Your task to perform on an android device: turn off javascript in the chrome app Image 0: 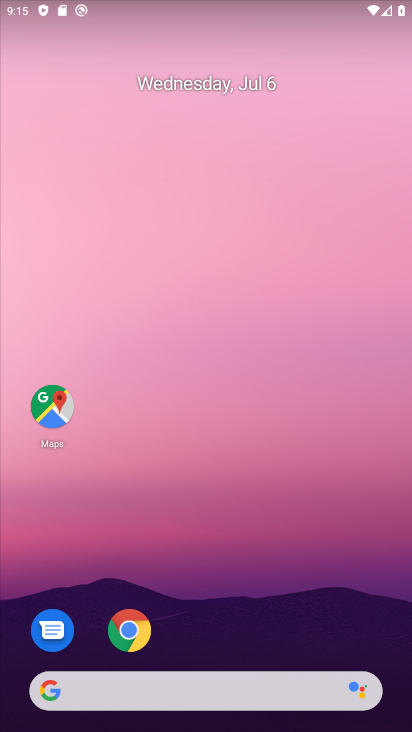
Step 0: click (128, 632)
Your task to perform on an android device: turn off javascript in the chrome app Image 1: 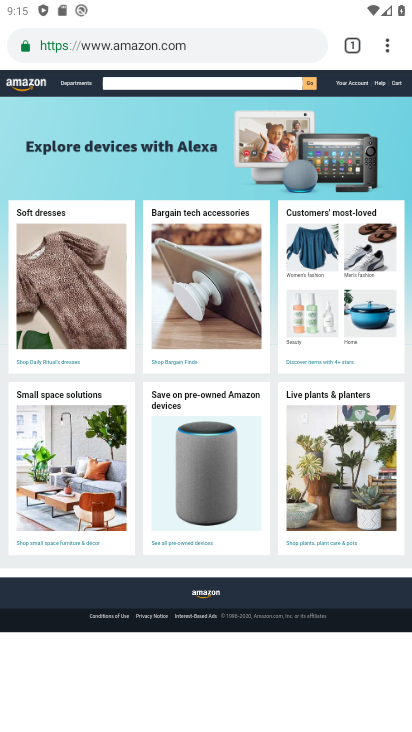
Step 1: click (386, 50)
Your task to perform on an android device: turn off javascript in the chrome app Image 2: 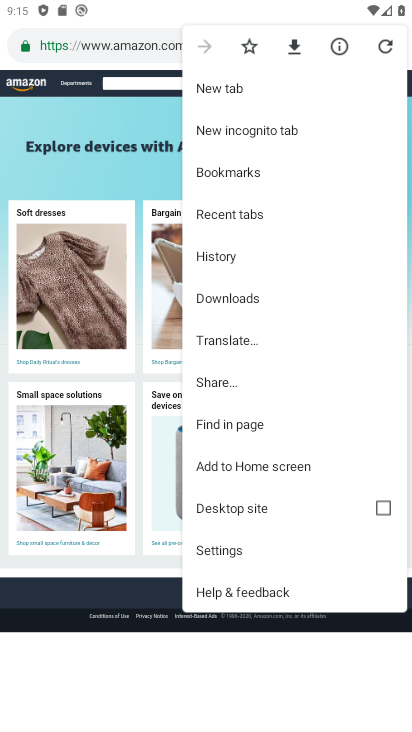
Step 2: click (234, 553)
Your task to perform on an android device: turn off javascript in the chrome app Image 3: 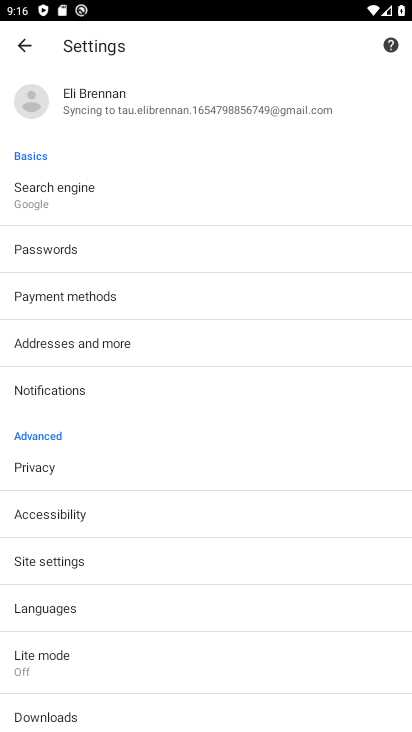
Step 3: click (47, 552)
Your task to perform on an android device: turn off javascript in the chrome app Image 4: 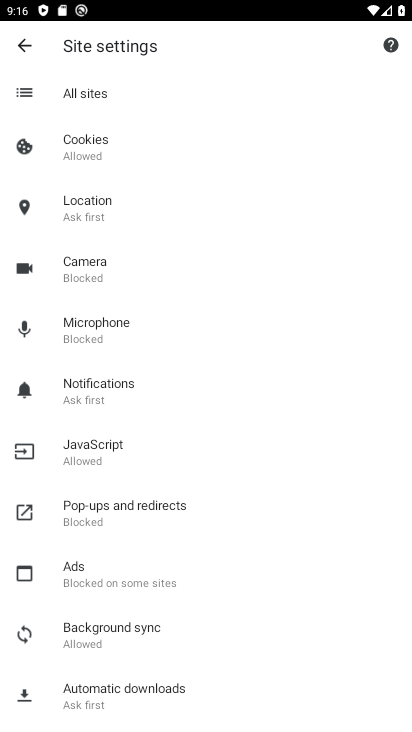
Step 4: click (83, 451)
Your task to perform on an android device: turn off javascript in the chrome app Image 5: 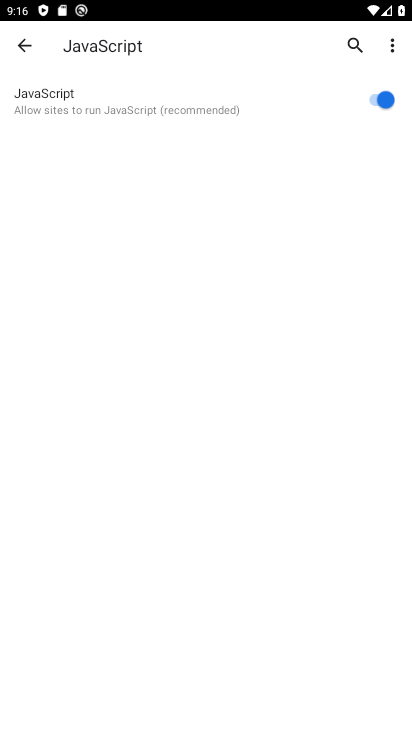
Step 5: click (370, 97)
Your task to perform on an android device: turn off javascript in the chrome app Image 6: 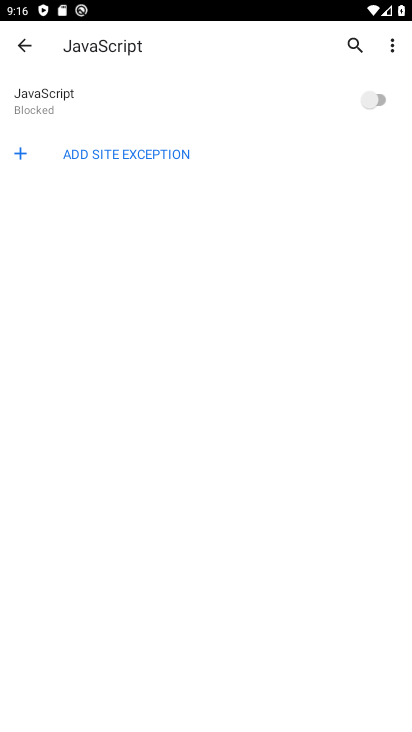
Step 6: task complete